Your task to perform on an android device: Open Amazon Image 0: 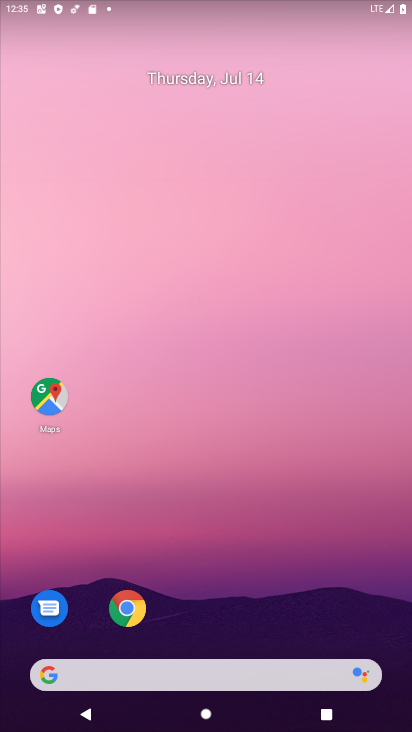
Step 0: click (121, 617)
Your task to perform on an android device: Open Amazon Image 1: 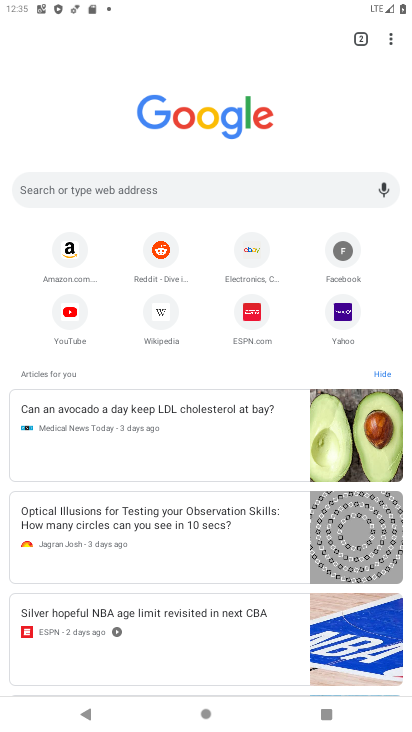
Step 1: click (77, 243)
Your task to perform on an android device: Open Amazon Image 2: 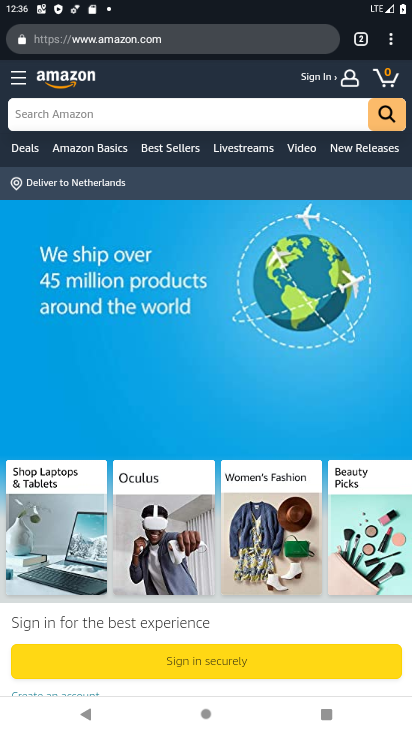
Step 2: task complete